Your task to perform on an android device: Go to privacy settings Image 0: 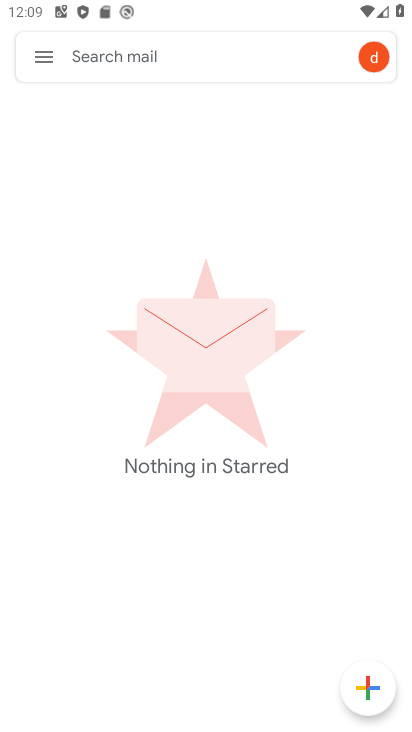
Step 0: press home button
Your task to perform on an android device: Go to privacy settings Image 1: 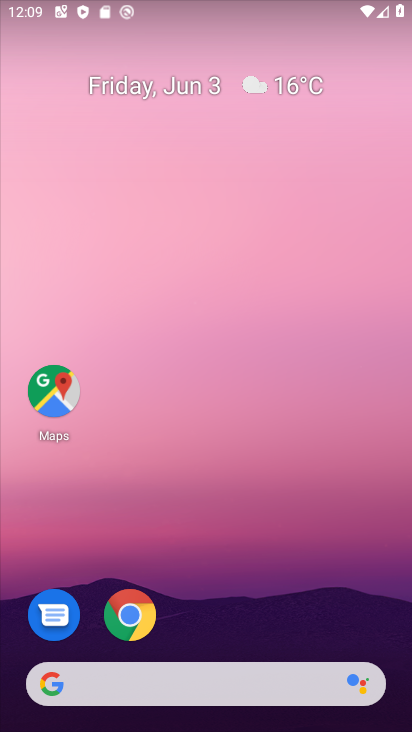
Step 1: drag from (234, 435) to (225, 129)
Your task to perform on an android device: Go to privacy settings Image 2: 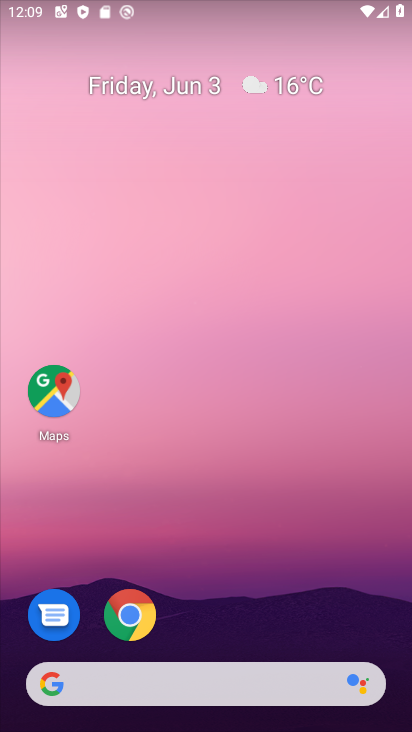
Step 2: drag from (217, 581) to (221, 147)
Your task to perform on an android device: Go to privacy settings Image 3: 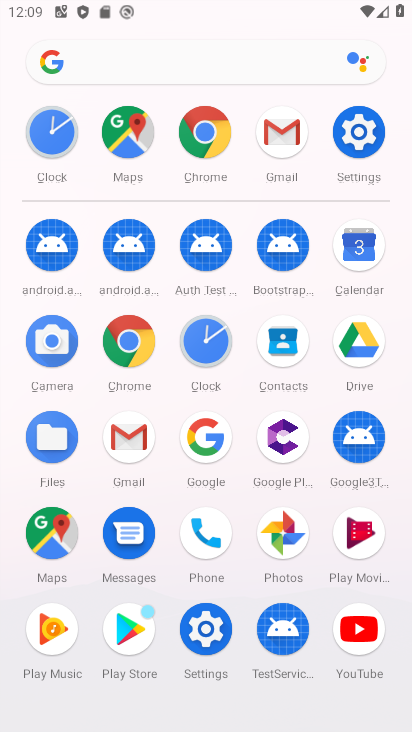
Step 3: click (338, 101)
Your task to perform on an android device: Go to privacy settings Image 4: 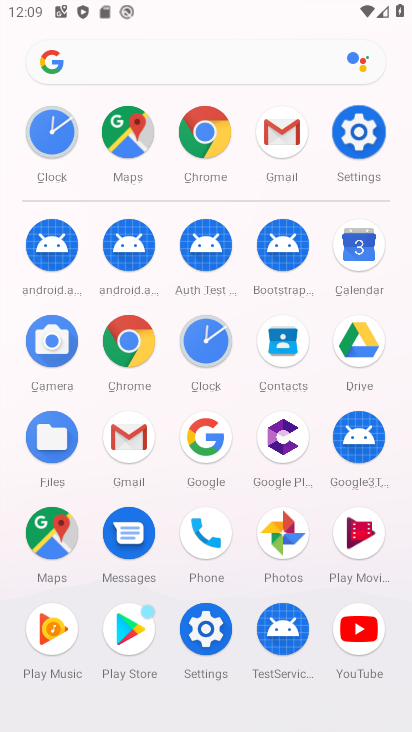
Step 4: click (360, 127)
Your task to perform on an android device: Go to privacy settings Image 5: 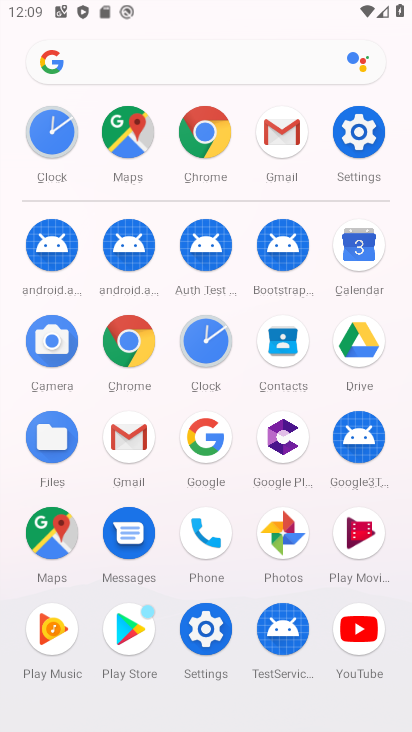
Step 5: click (359, 127)
Your task to perform on an android device: Go to privacy settings Image 6: 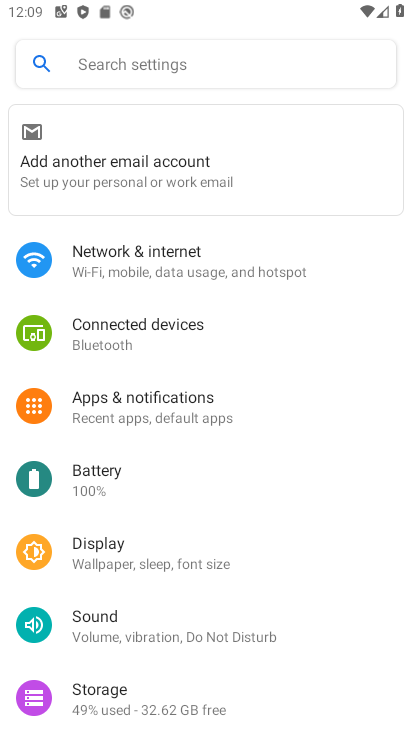
Step 6: drag from (136, 634) to (162, 307)
Your task to perform on an android device: Go to privacy settings Image 7: 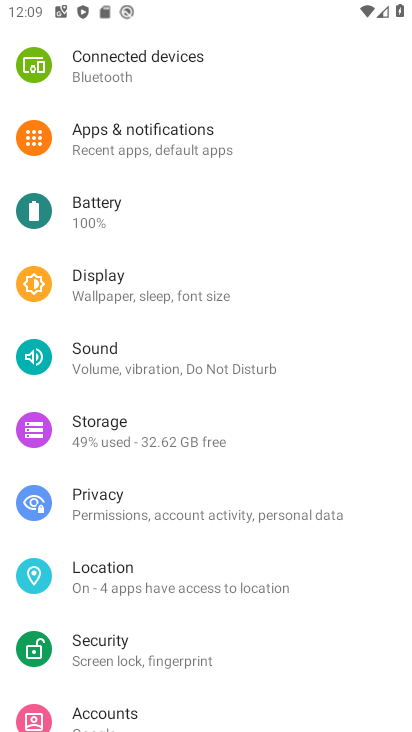
Step 7: click (144, 517)
Your task to perform on an android device: Go to privacy settings Image 8: 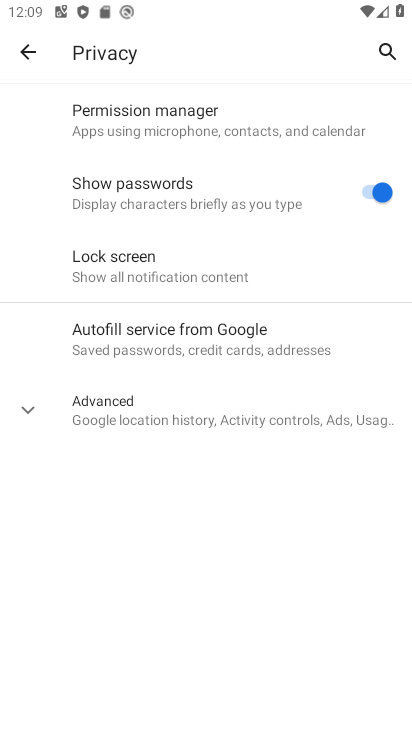
Step 8: task complete